Your task to perform on an android device: turn off sleep mode Image 0: 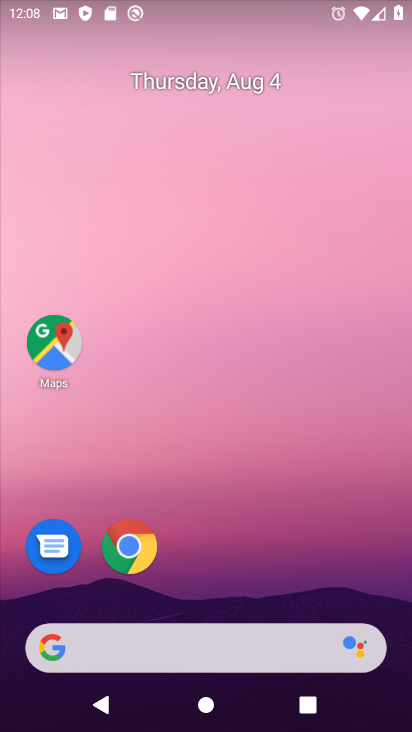
Step 0: drag from (247, 599) to (201, 4)
Your task to perform on an android device: turn off sleep mode Image 1: 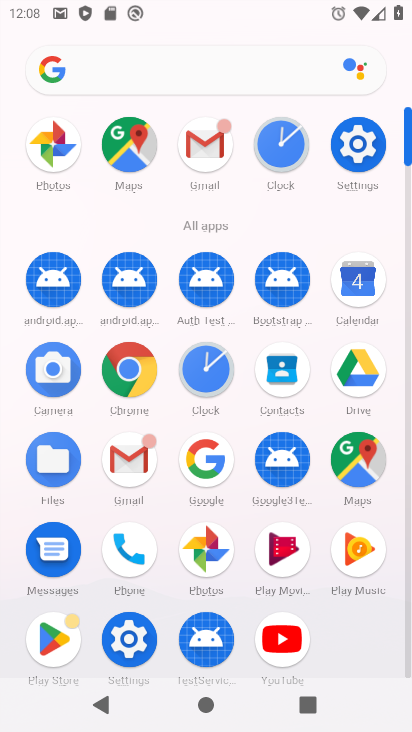
Step 1: drag from (357, 141) to (87, 427)
Your task to perform on an android device: turn off sleep mode Image 2: 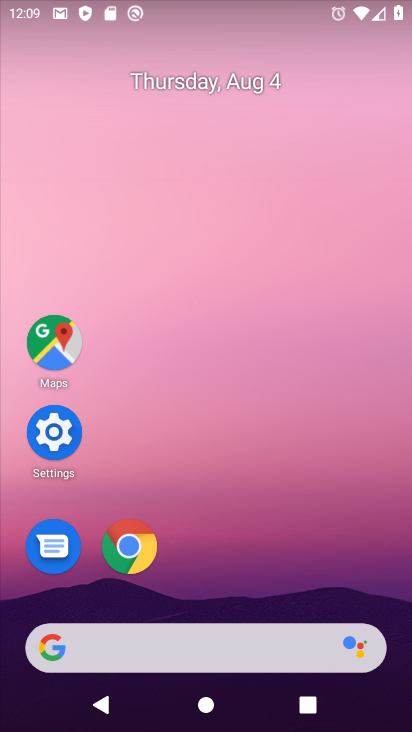
Step 2: drag from (237, 551) to (271, 12)
Your task to perform on an android device: turn off sleep mode Image 3: 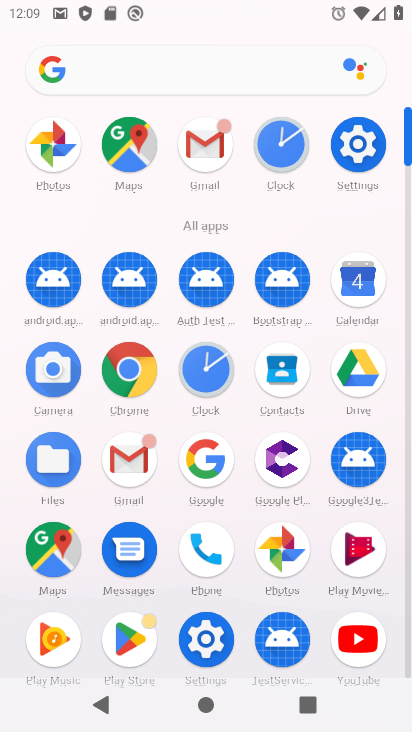
Step 3: drag from (205, 147) to (70, 324)
Your task to perform on an android device: turn off sleep mode Image 4: 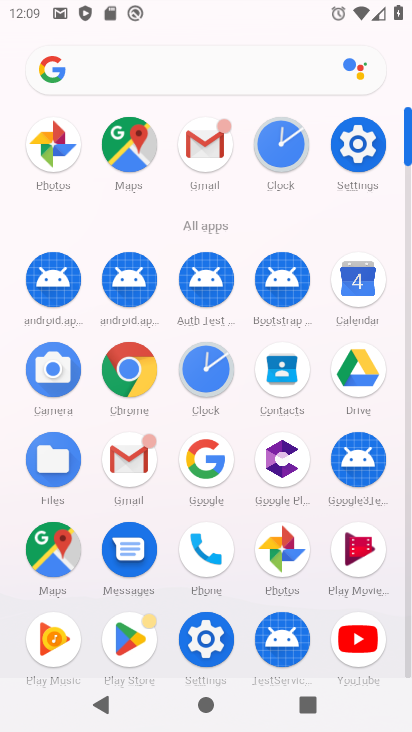
Step 4: drag from (208, 142) to (83, 267)
Your task to perform on an android device: turn off sleep mode Image 5: 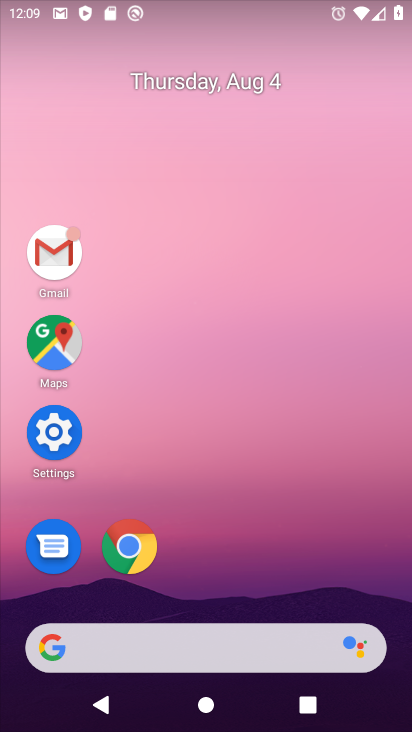
Step 5: drag from (269, 534) to (209, 116)
Your task to perform on an android device: turn off sleep mode Image 6: 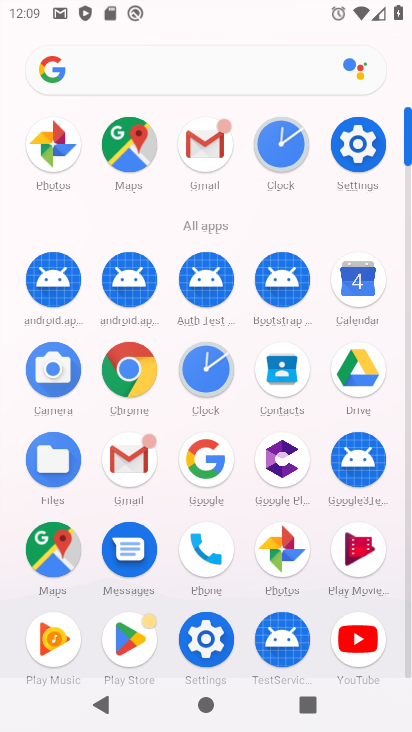
Step 6: drag from (273, 140) to (188, 543)
Your task to perform on an android device: turn off sleep mode Image 7: 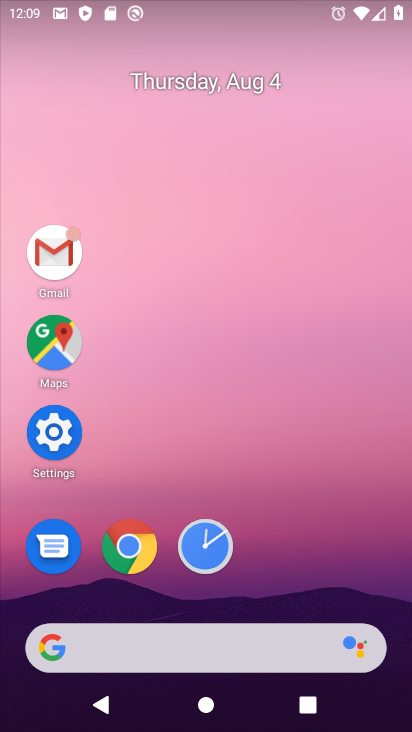
Step 7: drag from (281, 572) to (220, 78)
Your task to perform on an android device: turn off sleep mode Image 8: 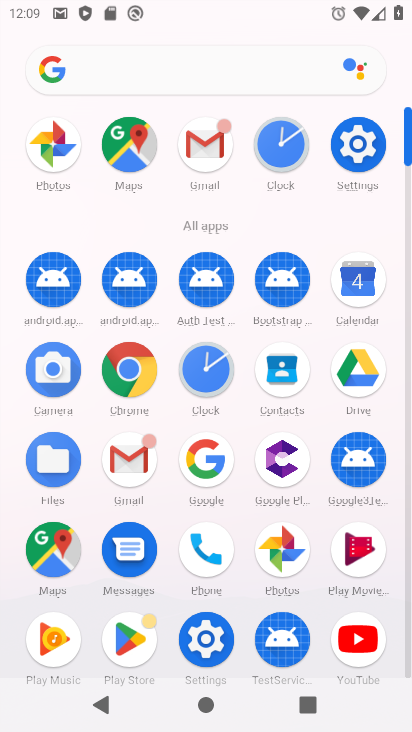
Step 8: drag from (366, 282) to (163, 427)
Your task to perform on an android device: turn off sleep mode Image 9: 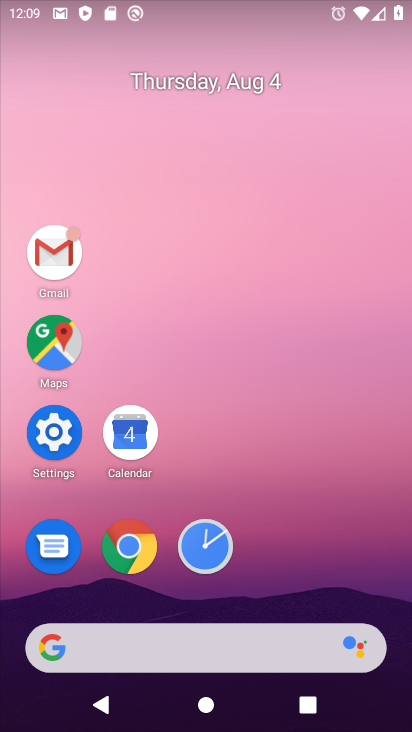
Step 9: drag from (295, 531) to (197, 1)
Your task to perform on an android device: turn off sleep mode Image 10: 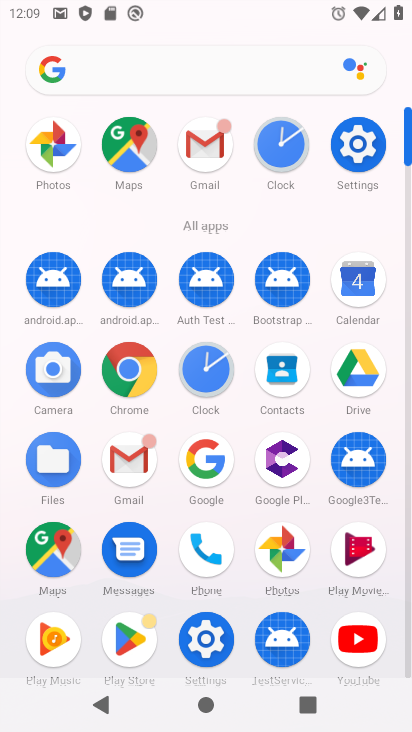
Step 10: drag from (294, 369) to (155, 342)
Your task to perform on an android device: turn off sleep mode Image 11: 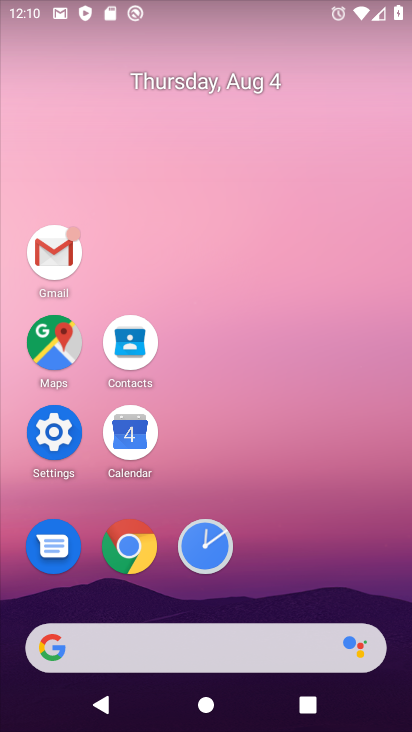
Step 11: drag from (297, 573) to (205, 71)
Your task to perform on an android device: turn off sleep mode Image 12: 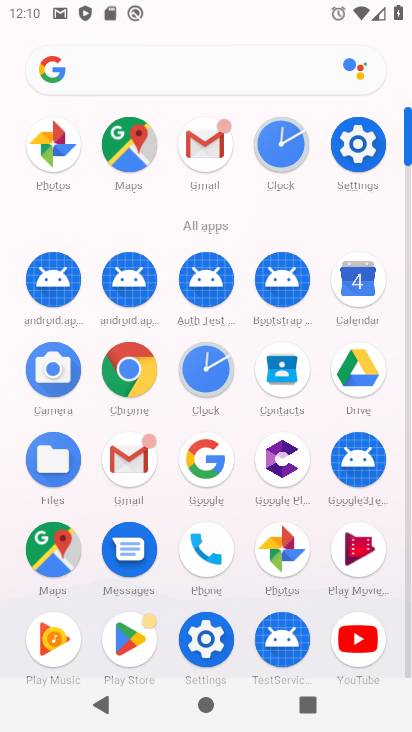
Step 12: drag from (366, 650) to (129, 273)
Your task to perform on an android device: turn off sleep mode Image 13: 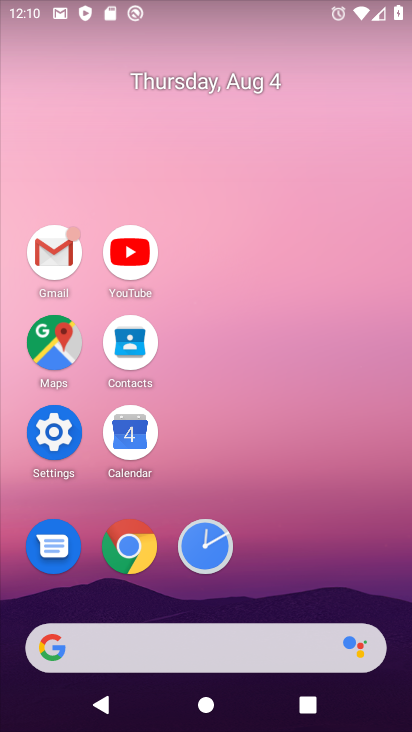
Step 13: click (59, 431)
Your task to perform on an android device: turn off sleep mode Image 14: 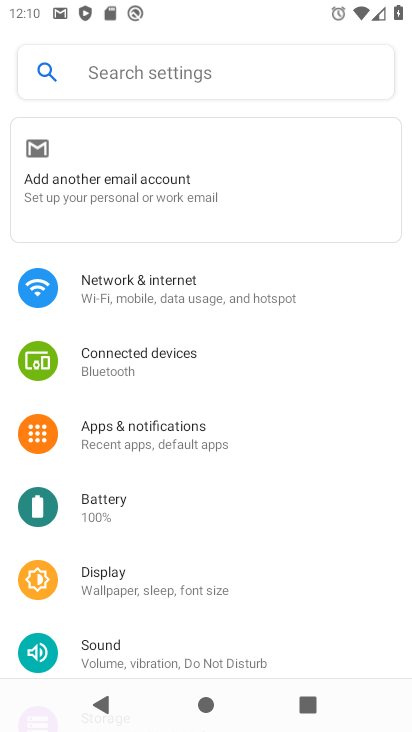
Step 14: click (114, 592)
Your task to perform on an android device: turn off sleep mode Image 15: 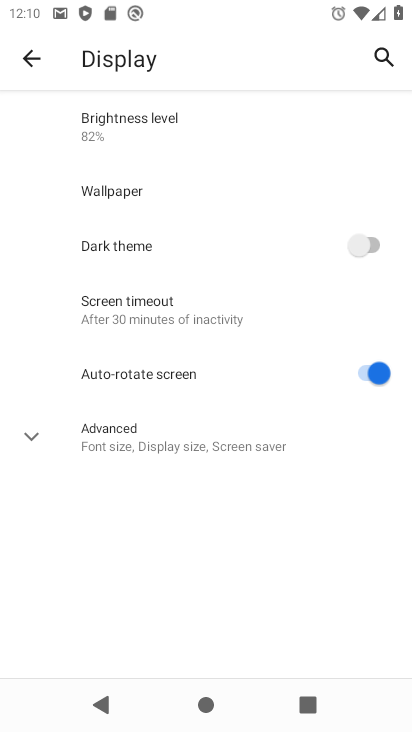
Step 15: task complete